Your task to perform on an android device: Go to Google maps Image 0: 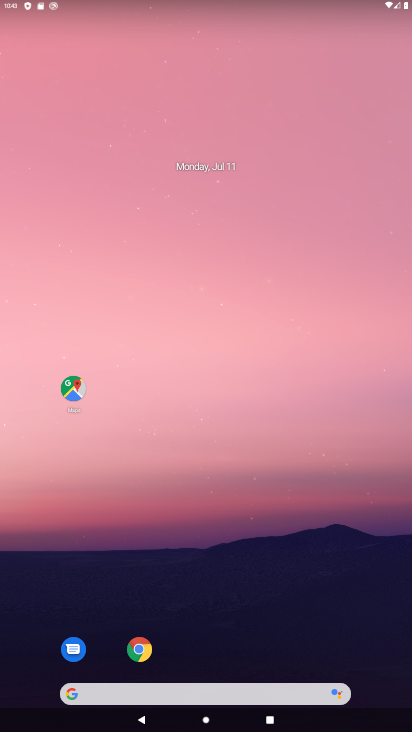
Step 0: drag from (335, 566) to (256, 148)
Your task to perform on an android device: Go to Google maps Image 1: 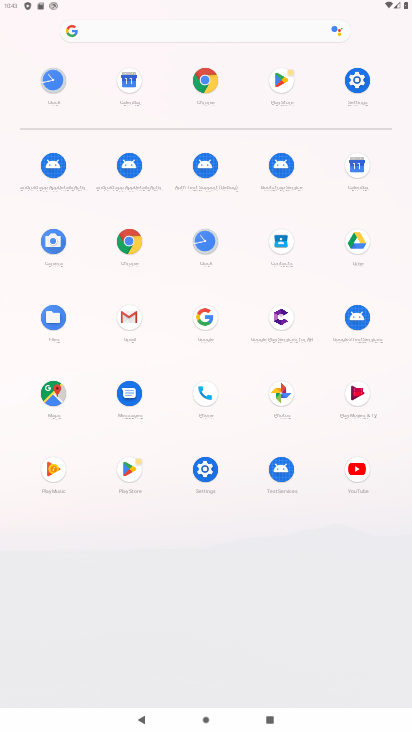
Step 1: click (53, 394)
Your task to perform on an android device: Go to Google maps Image 2: 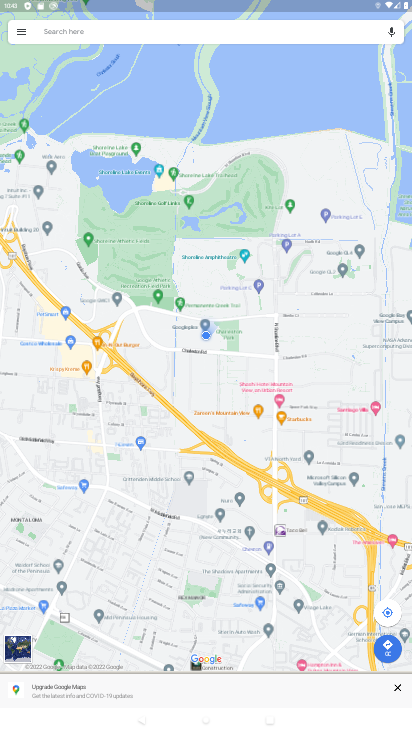
Step 2: task complete